Your task to perform on an android device: Search for sushi restaurants on Maps Image 0: 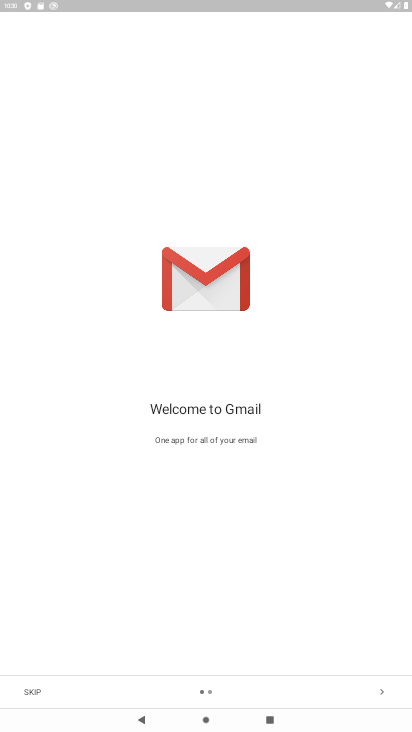
Step 0: press home button
Your task to perform on an android device: Search for sushi restaurants on Maps Image 1: 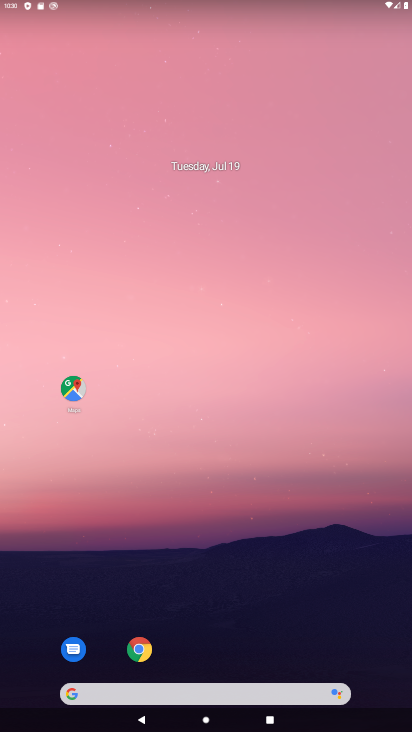
Step 1: drag from (215, 618) to (250, 174)
Your task to perform on an android device: Search for sushi restaurants on Maps Image 2: 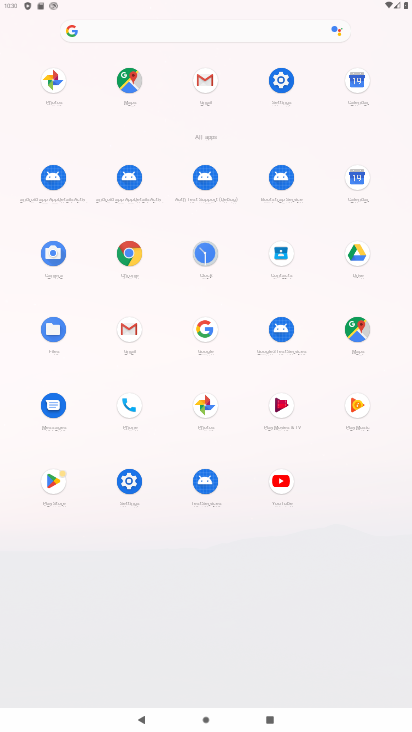
Step 2: click (352, 333)
Your task to perform on an android device: Search for sushi restaurants on Maps Image 3: 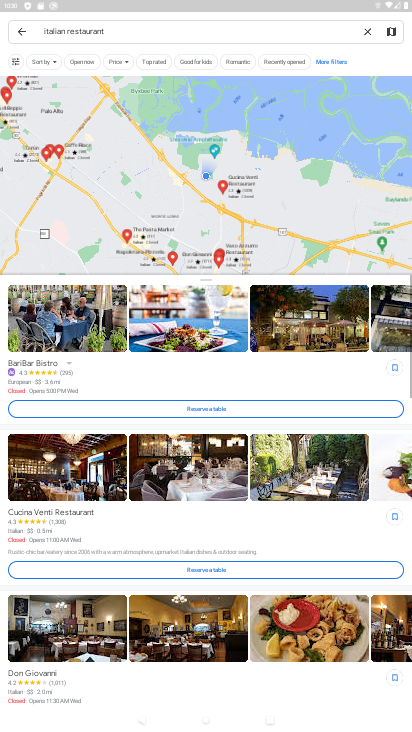
Step 3: click (229, 29)
Your task to perform on an android device: Search for sushi restaurants on Maps Image 4: 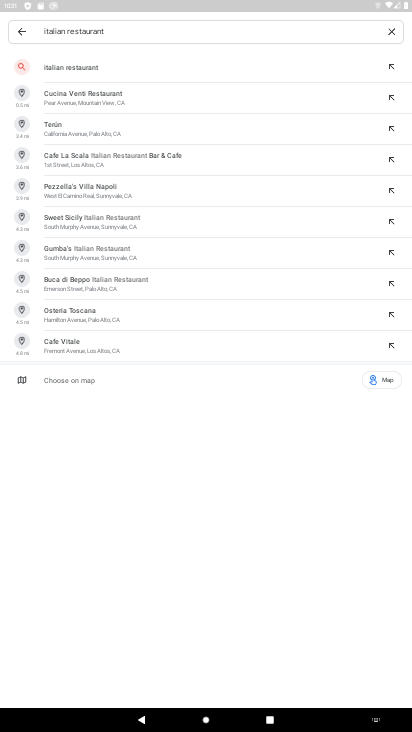
Step 4: click (383, 24)
Your task to perform on an android device: Search for sushi restaurants on Maps Image 5: 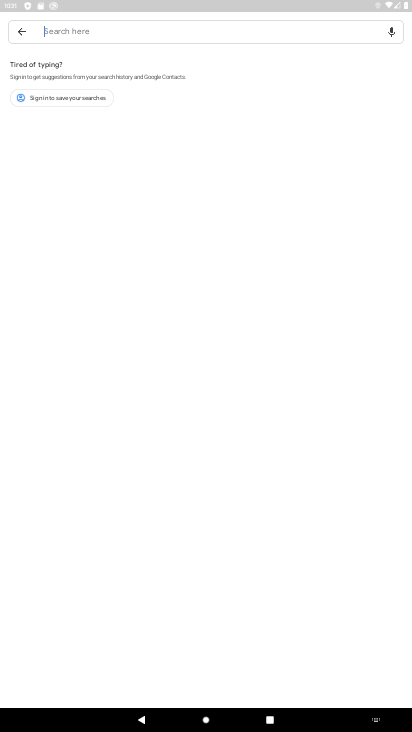
Step 5: type "sushi restaurants"
Your task to perform on an android device: Search for sushi restaurants on Maps Image 6: 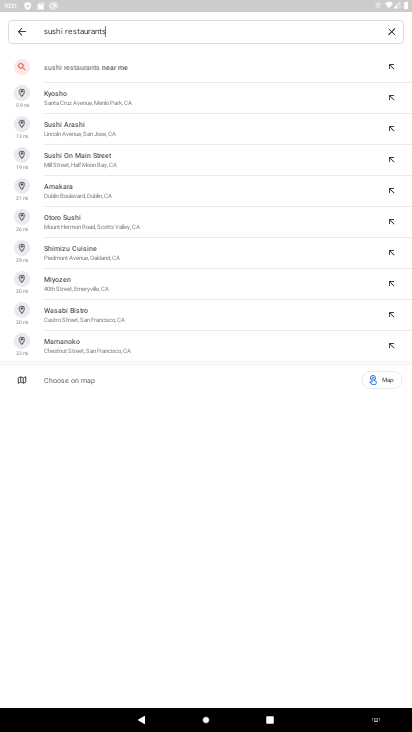
Step 6: press enter
Your task to perform on an android device: Search for sushi restaurants on Maps Image 7: 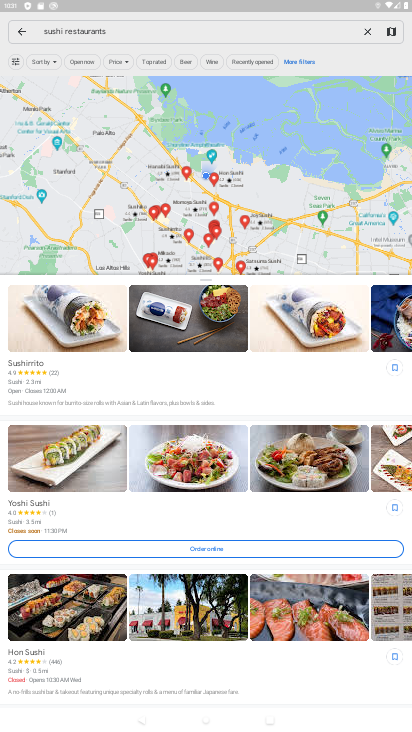
Step 7: task complete